Your task to perform on an android device: Show me the alarms in the clock app Image 0: 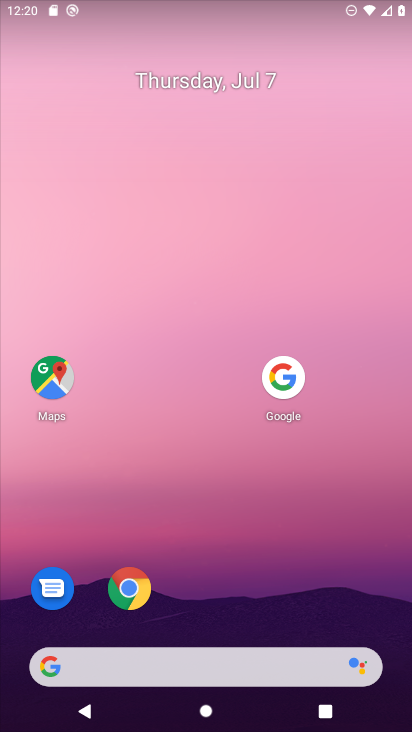
Step 0: drag from (153, 670) to (279, 3)
Your task to perform on an android device: Show me the alarms in the clock app Image 1: 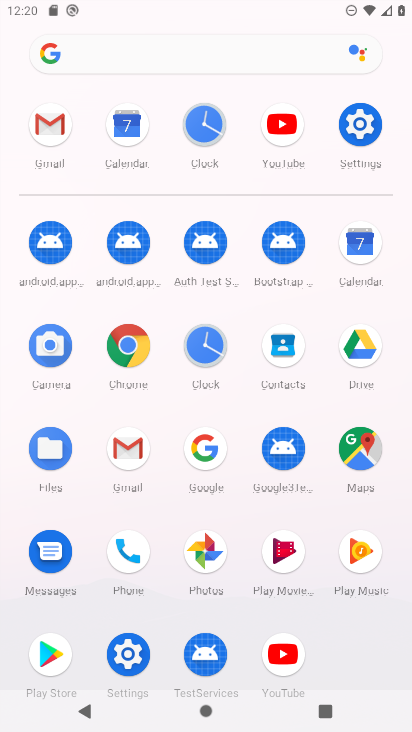
Step 1: click (201, 364)
Your task to perform on an android device: Show me the alarms in the clock app Image 2: 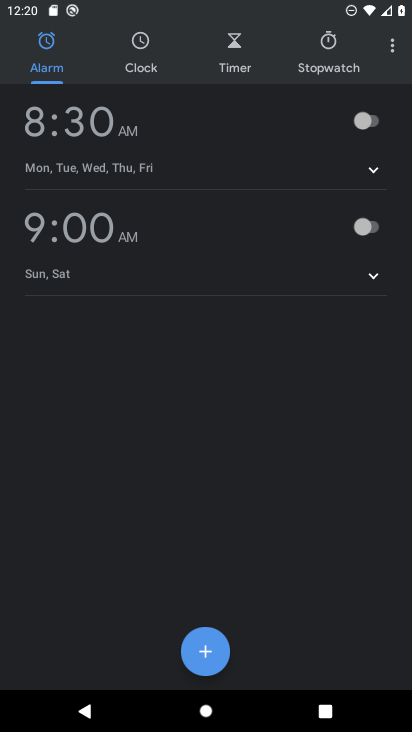
Step 2: task complete